Your task to perform on an android device: turn off translation in the chrome app Image 0: 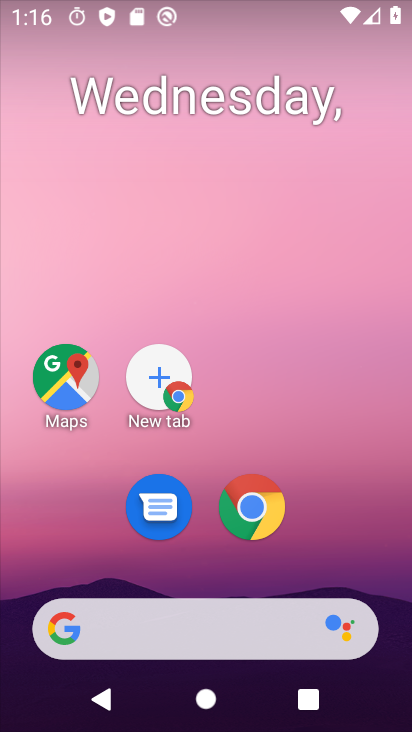
Step 0: drag from (374, 489) to (400, 134)
Your task to perform on an android device: turn off translation in the chrome app Image 1: 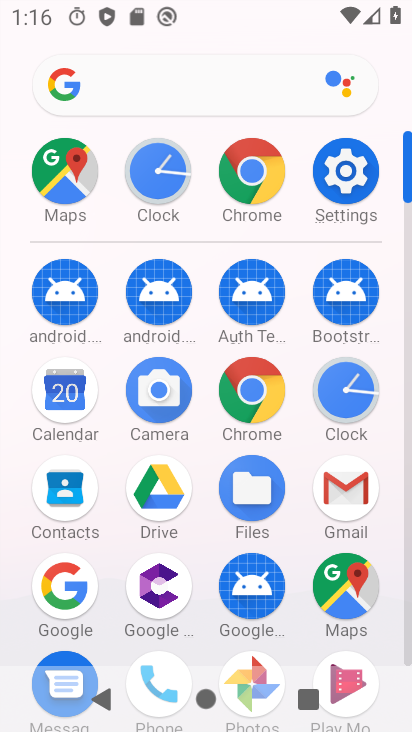
Step 1: click (243, 169)
Your task to perform on an android device: turn off translation in the chrome app Image 2: 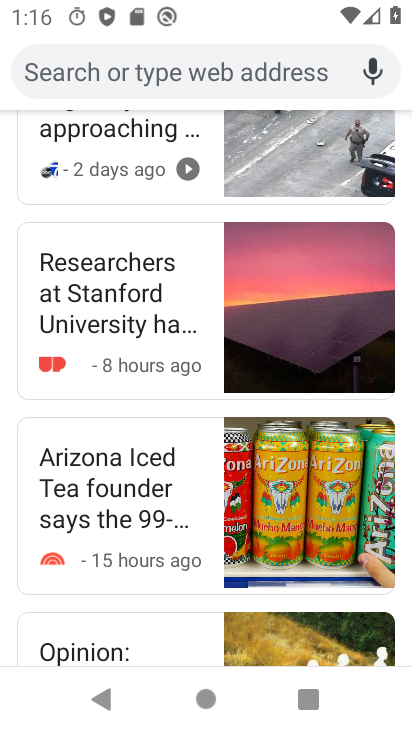
Step 2: drag from (147, 164) to (81, 520)
Your task to perform on an android device: turn off translation in the chrome app Image 3: 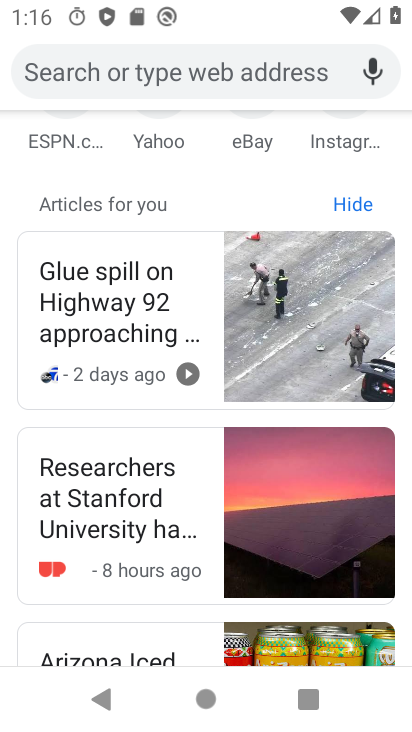
Step 3: drag from (137, 251) to (123, 573)
Your task to perform on an android device: turn off translation in the chrome app Image 4: 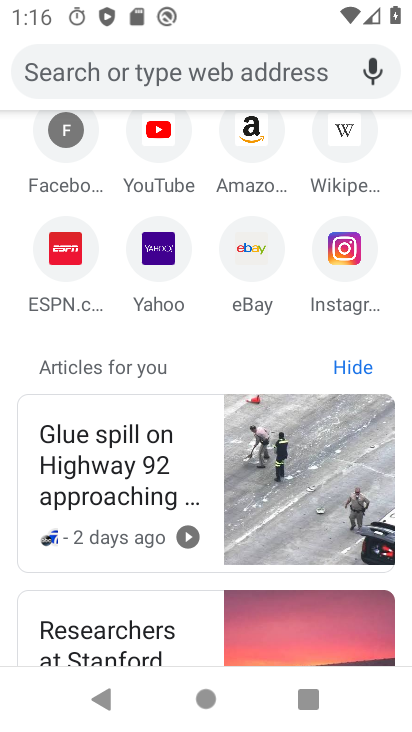
Step 4: drag from (120, 404) to (108, 583)
Your task to perform on an android device: turn off translation in the chrome app Image 5: 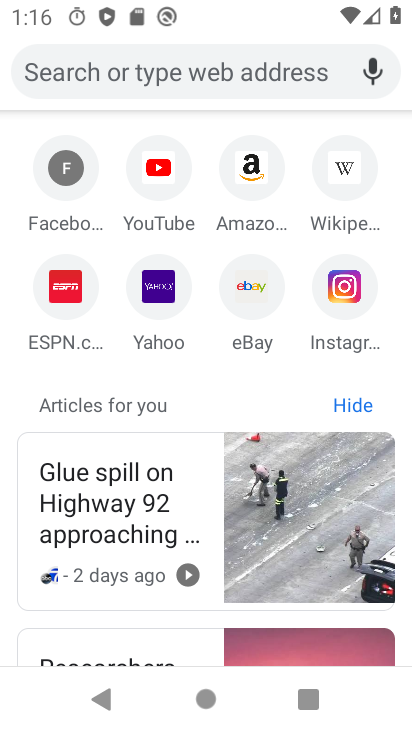
Step 5: drag from (179, 275) to (162, 556)
Your task to perform on an android device: turn off translation in the chrome app Image 6: 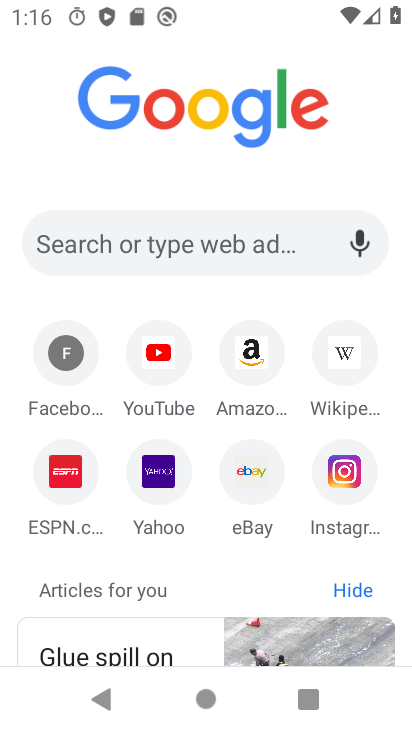
Step 6: drag from (348, 111) to (380, 490)
Your task to perform on an android device: turn off translation in the chrome app Image 7: 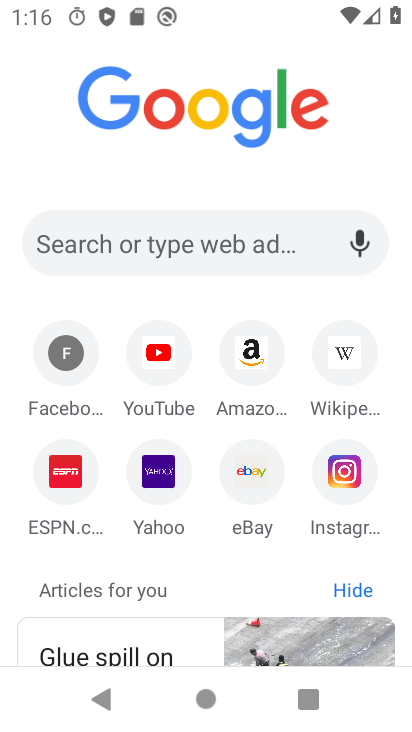
Step 7: drag from (272, 132) to (279, 461)
Your task to perform on an android device: turn off translation in the chrome app Image 8: 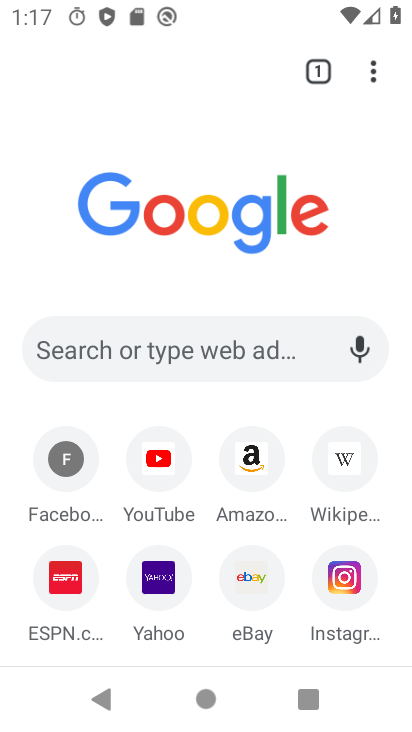
Step 8: click (377, 71)
Your task to perform on an android device: turn off translation in the chrome app Image 9: 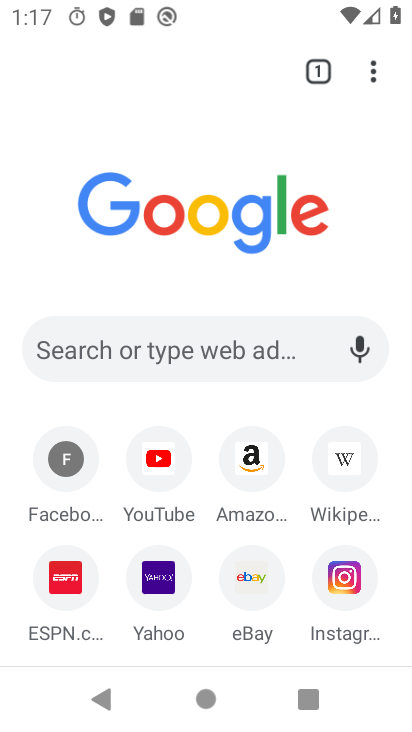
Step 9: drag from (377, 71) to (104, 505)
Your task to perform on an android device: turn off translation in the chrome app Image 10: 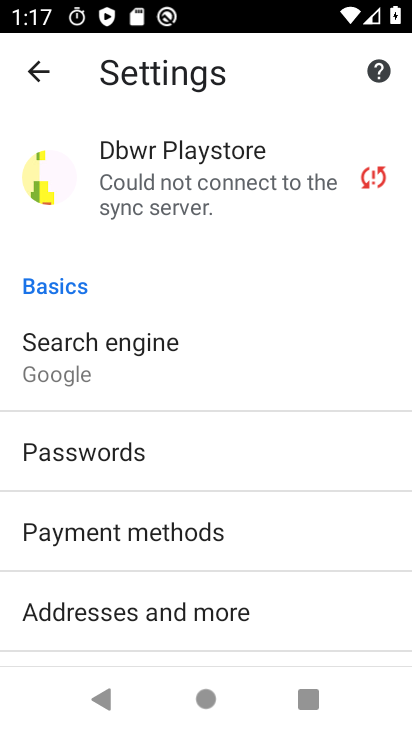
Step 10: drag from (120, 589) to (148, 206)
Your task to perform on an android device: turn off translation in the chrome app Image 11: 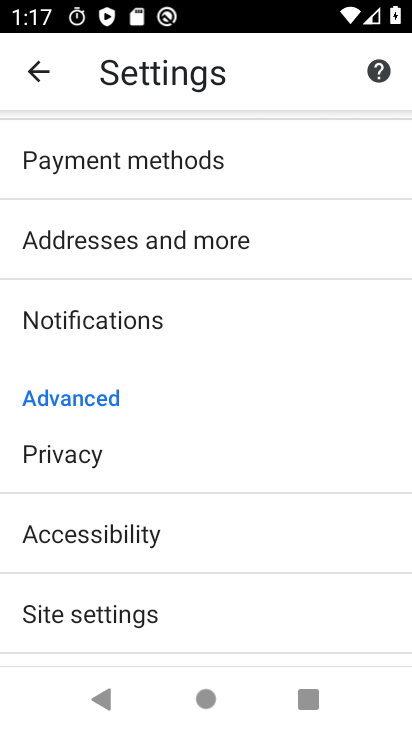
Step 11: drag from (155, 561) to (220, 261)
Your task to perform on an android device: turn off translation in the chrome app Image 12: 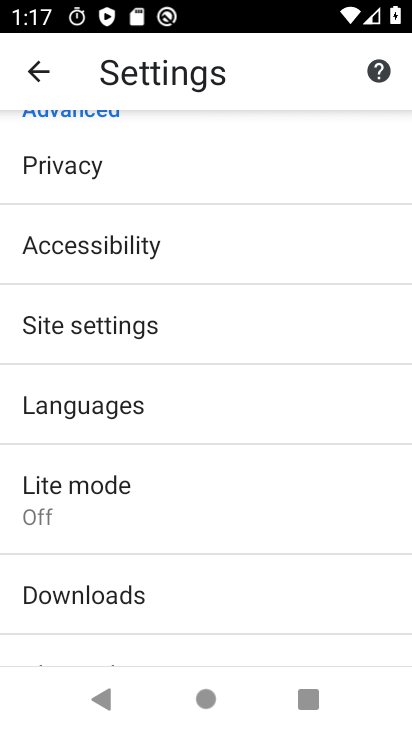
Step 12: click (143, 404)
Your task to perform on an android device: turn off translation in the chrome app Image 13: 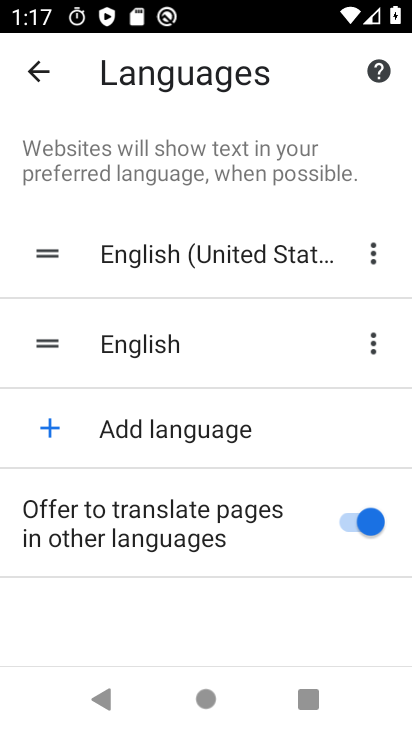
Step 13: click (365, 523)
Your task to perform on an android device: turn off translation in the chrome app Image 14: 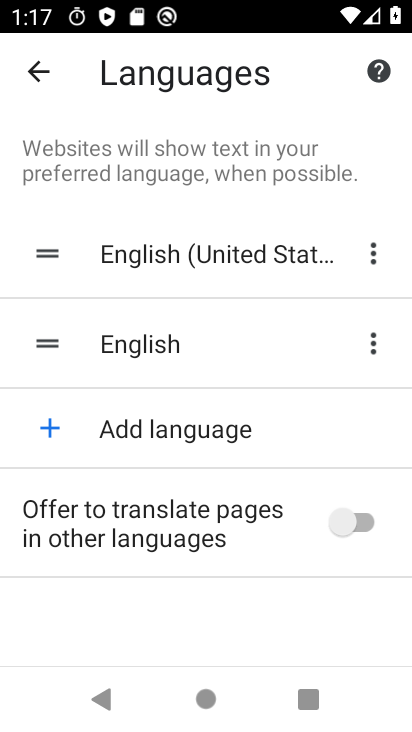
Step 14: task complete